Your task to perform on an android device: add a contact Image 0: 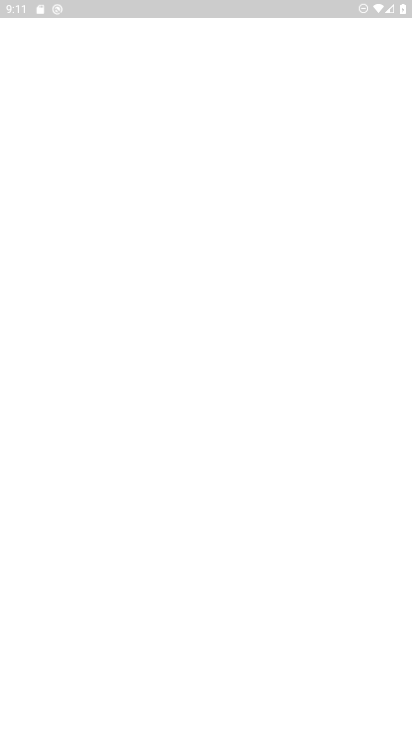
Step 0: drag from (336, 629) to (331, 496)
Your task to perform on an android device: add a contact Image 1: 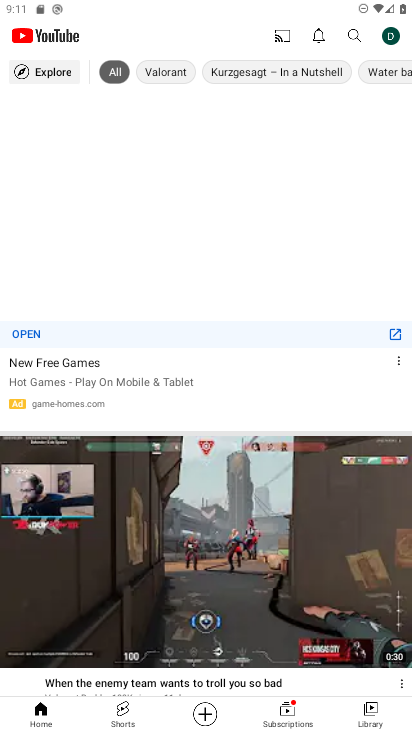
Step 1: press home button
Your task to perform on an android device: add a contact Image 2: 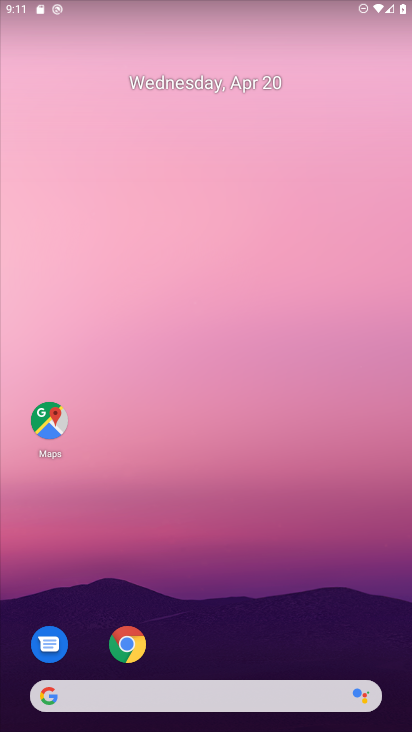
Step 2: drag from (262, 516) to (191, 160)
Your task to perform on an android device: add a contact Image 3: 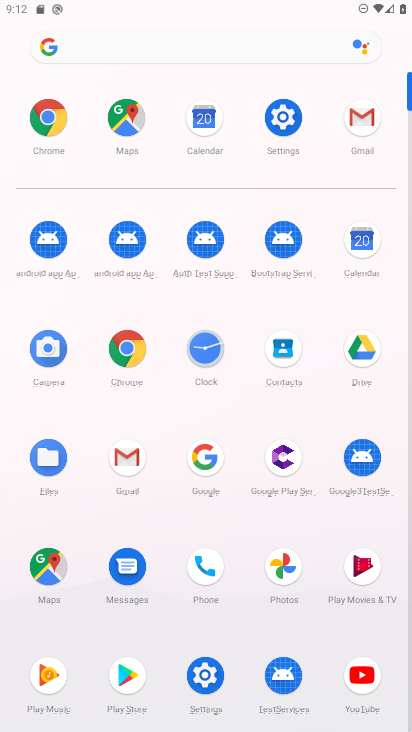
Step 3: click (273, 357)
Your task to perform on an android device: add a contact Image 4: 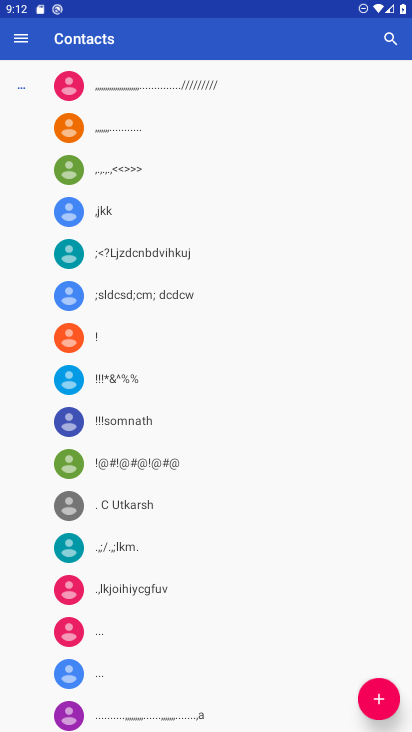
Step 4: click (375, 708)
Your task to perform on an android device: add a contact Image 5: 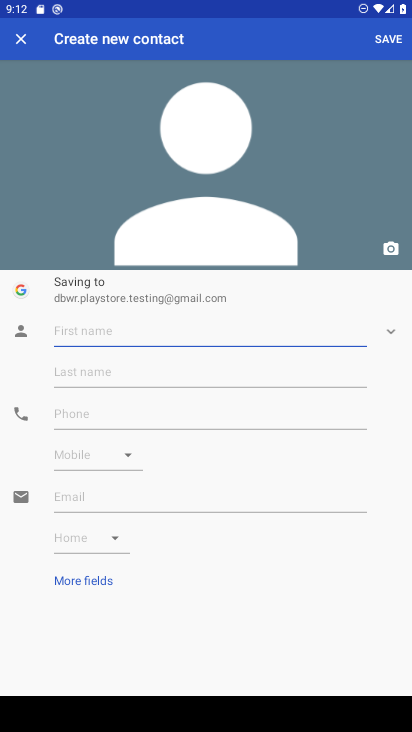
Step 5: type "anek"
Your task to perform on an android device: add a contact Image 6: 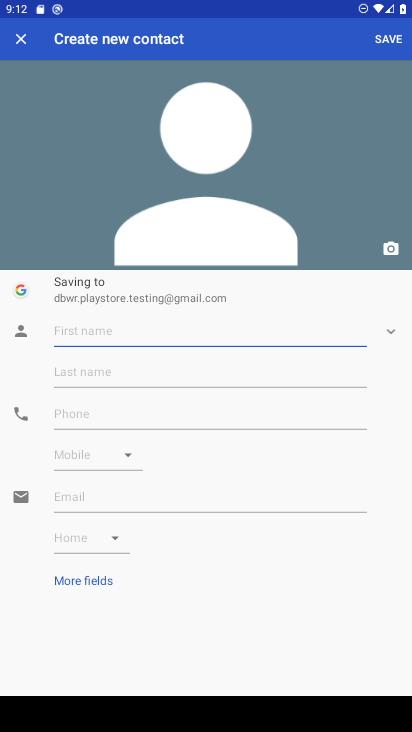
Step 6: click (387, 34)
Your task to perform on an android device: add a contact Image 7: 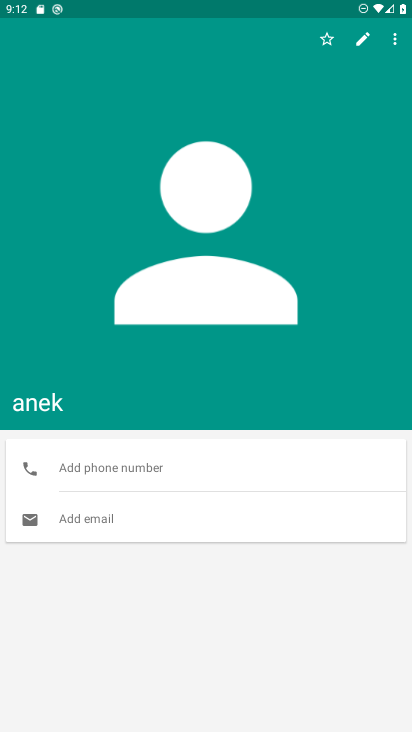
Step 7: task complete